Your task to perform on an android device: Search for pizza restaurants on Maps Image 0: 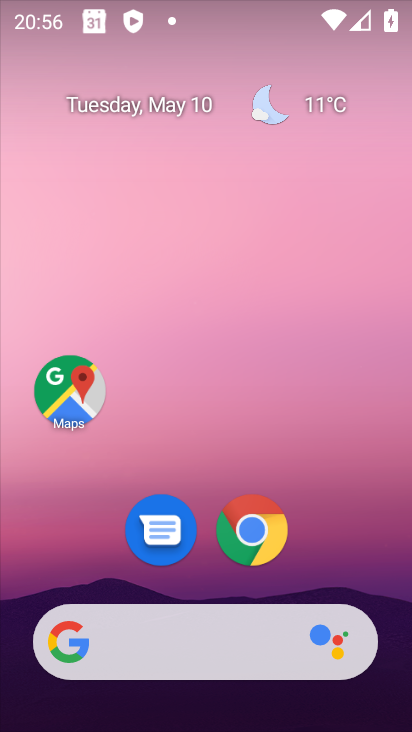
Step 0: click (47, 396)
Your task to perform on an android device: Search for pizza restaurants on Maps Image 1: 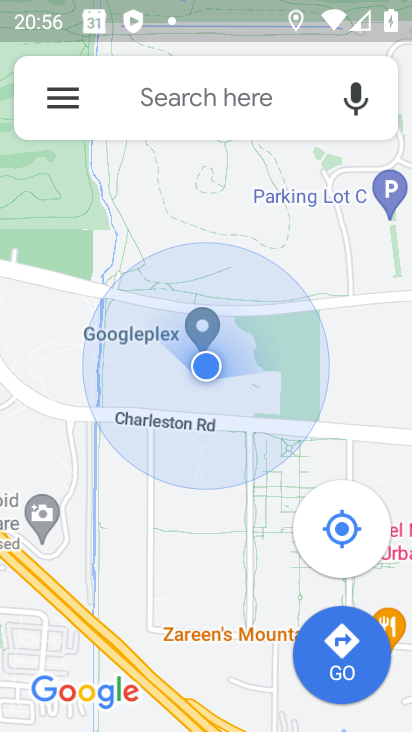
Step 1: click (183, 122)
Your task to perform on an android device: Search for pizza restaurants on Maps Image 2: 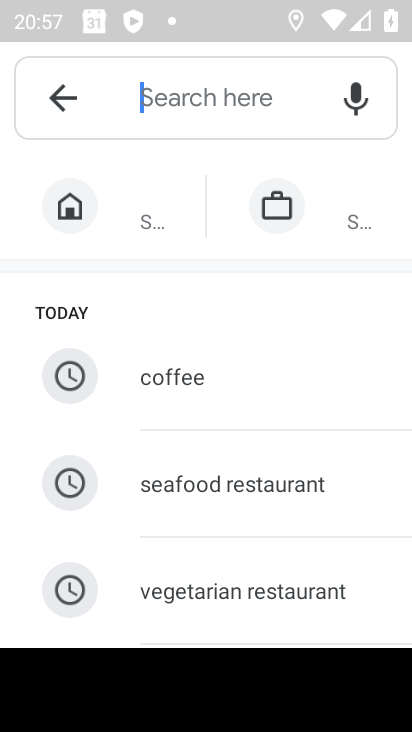
Step 2: drag from (347, 526) to (333, 324)
Your task to perform on an android device: Search for pizza restaurants on Maps Image 3: 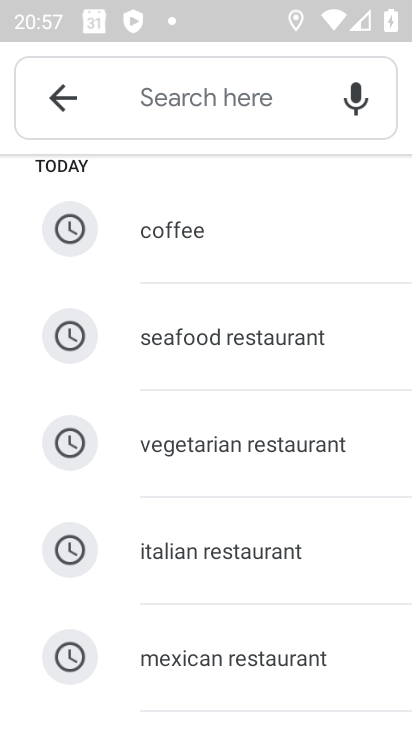
Step 3: drag from (258, 557) to (258, 290)
Your task to perform on an android device: Search for pizza restaurants on Maps Image 4: 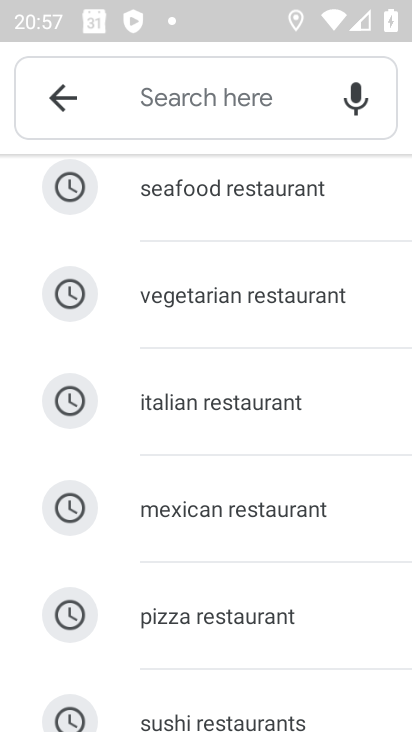
Step 4: click (258, 601)
Your task to perform on an android device: Search for pizza restaurants on Maps Image 5: 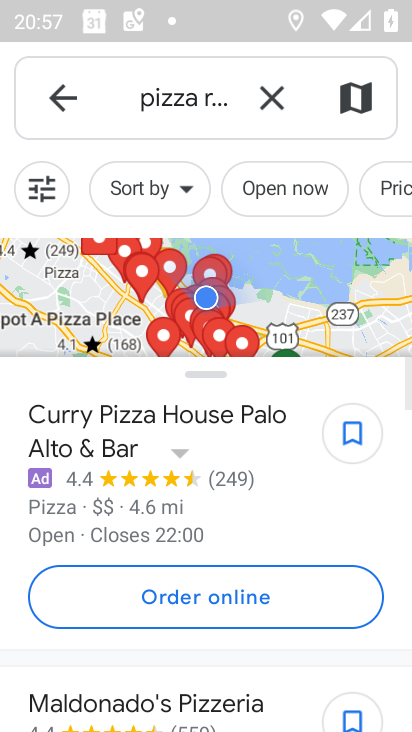
Step 5: task complete